Your task to perform on an android device: turn off notifications in google photos Image 0: 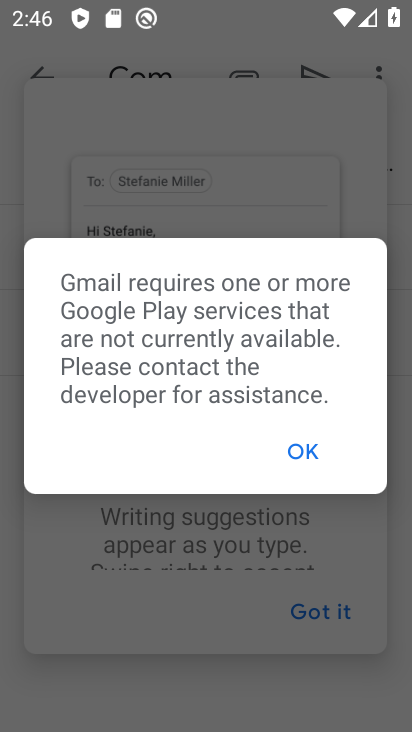
Step 0: press home button
Your task to perform on an android device: turn off notifications in google photos Image 1: 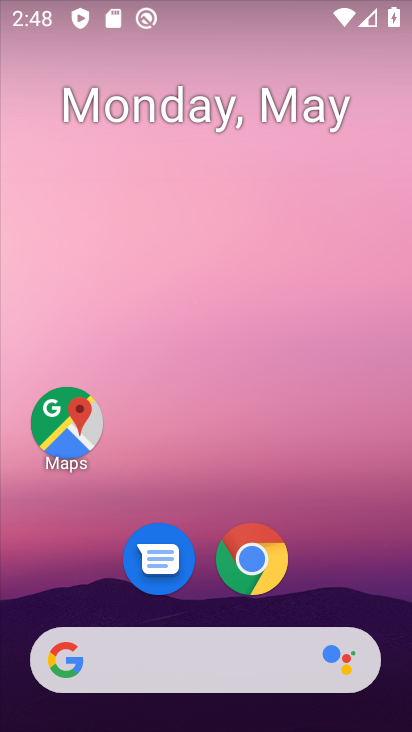
Step 1: drag from (370, 564) to (269, 108)
Your task to perform on an android device: turn off notifications in google photos Image 2: 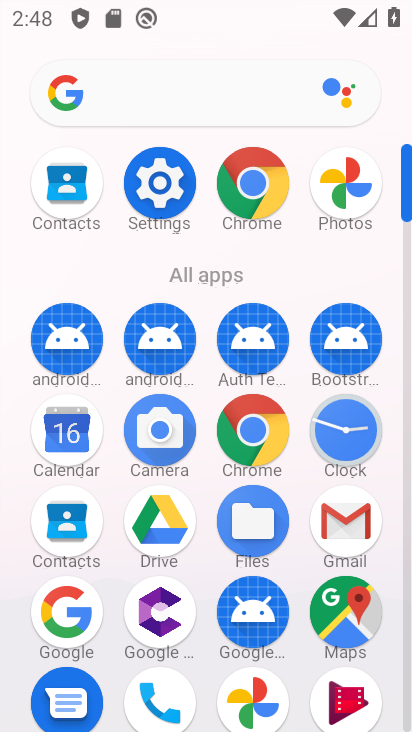
Step 2: click (355, 202)
Your task to perform on an android device: turn off notifications in google photos Image 3: 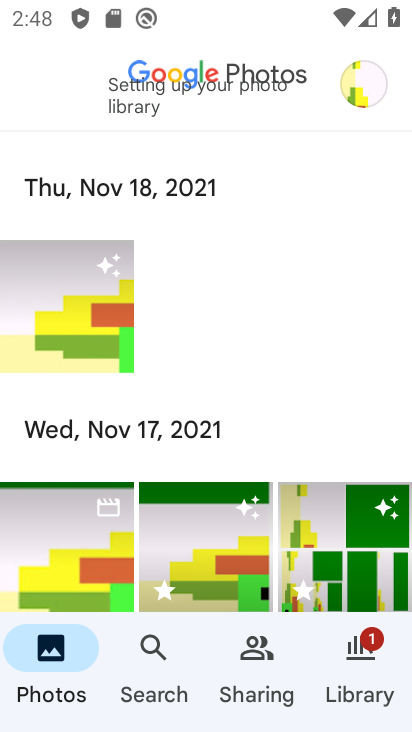
Step 3: click (356, 94)
Your task to perform on an android device: turn off notifications in google photos Image 4: 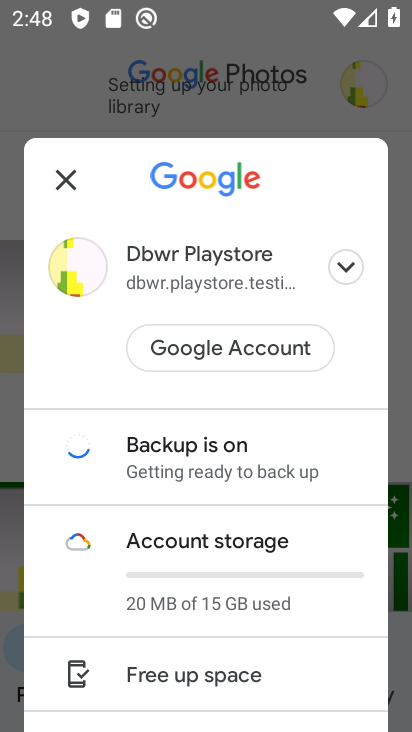
Step 4: drag from (310, 580) to (270, 155)
Your task to perform on an android device: turn off notifications in google photos Image 5: 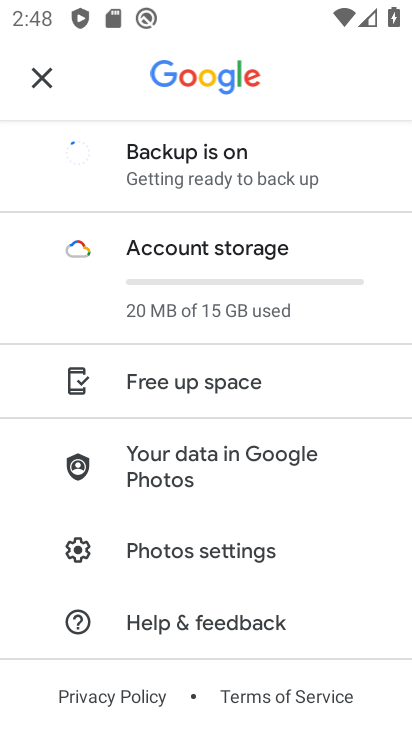
Step 5: click (296, 548)
Your task to perform on an android device: turn off notifications in google photos Image 6: 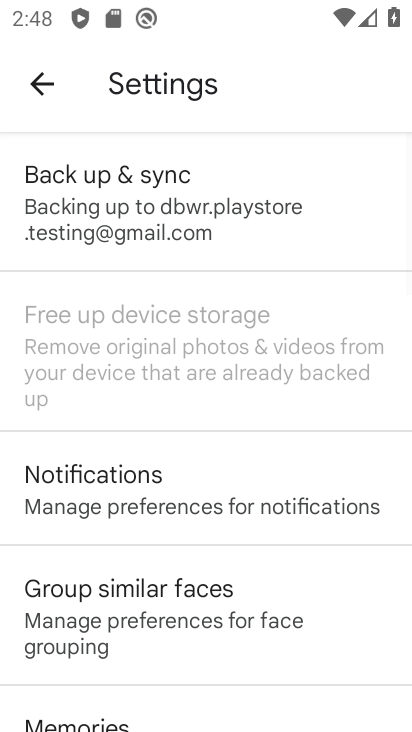
Step 6: click (287, 499)
Your task to perform on an android device: turn off notifications in google photos Image 7: 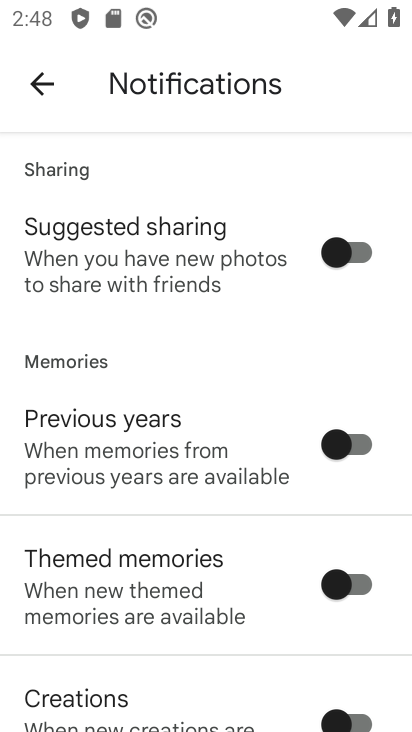
Step 7: drag from (220, 181) to (232, 637)
Your task to perform on an android device: turn off notifications in google photos Image 8: 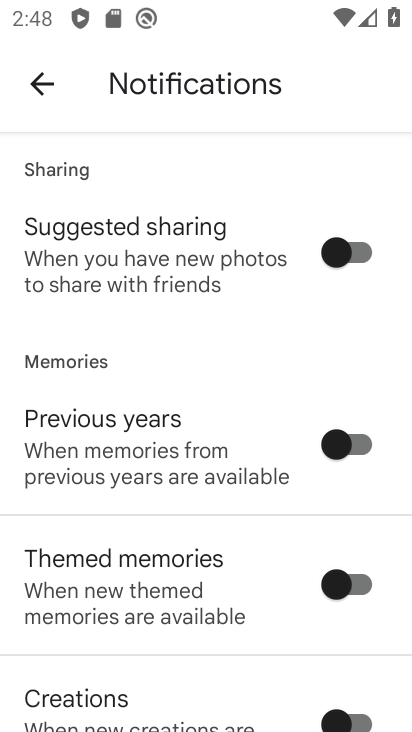
Step 8: drag from (235, 637) to (222, 276)
Your task to perform on an android device: turn off notifications in google photos Image 9: 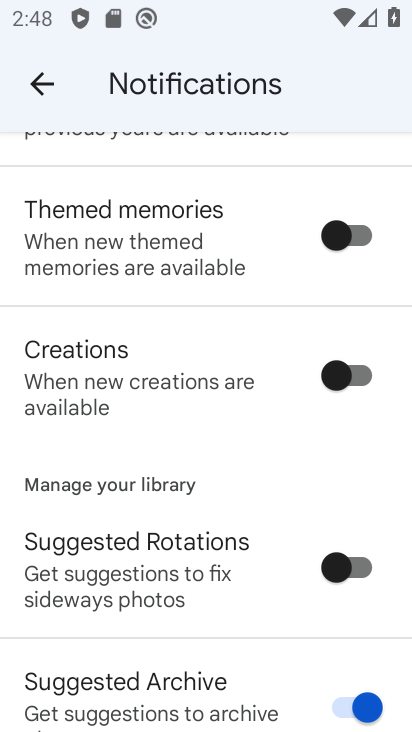
Step 9: drag from (212, 142) to (198, 601)
Your task to perform on an android device: turn off notifications in google photos Image 10: 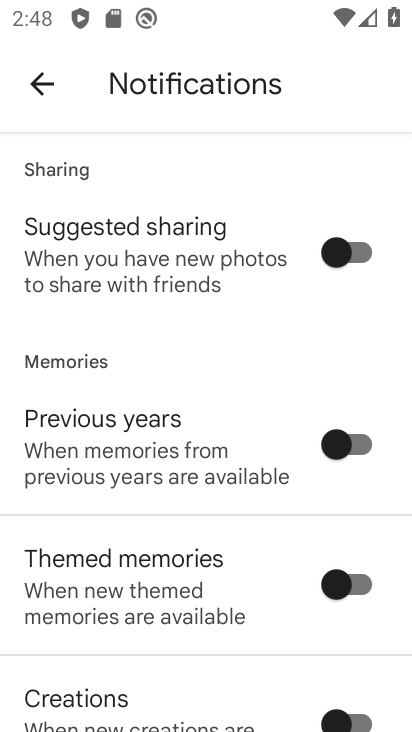
Step 10: drag from (180, 335) to (182, 715)
Your task to perform on an android device: turn off notifications in google photos Image 11: 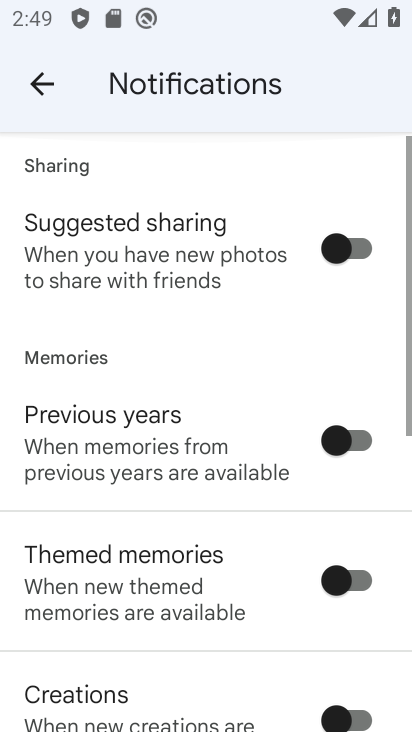
Step 11: drag from (172, 642) to (172, 312)
Your task to perform on an android device: turn off notifications in google photos Image 12: 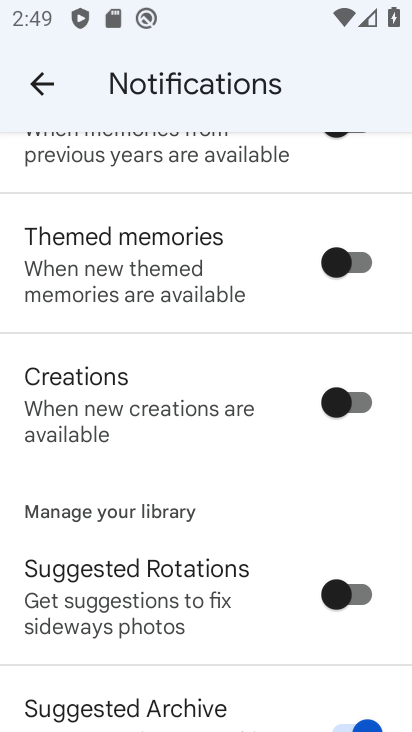
Step 12: drag from (235, 530) to (229, 171)
Your task to perform on an android device: turn off notifications in google photos Image 13: 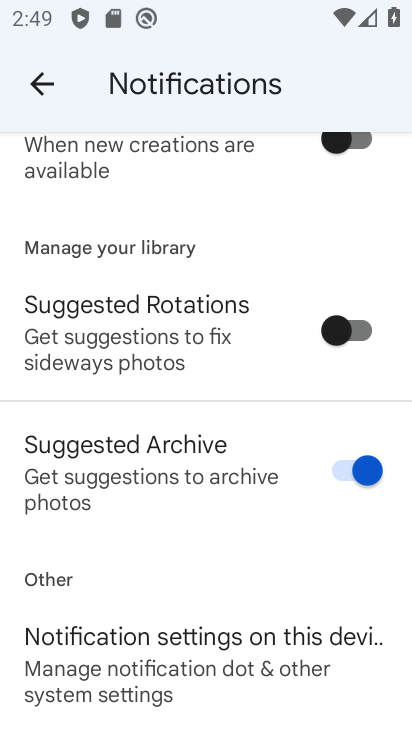
Step 13: click (264, 645)
Your task to perform on an android device: turn off notifications in google photos Image 14: 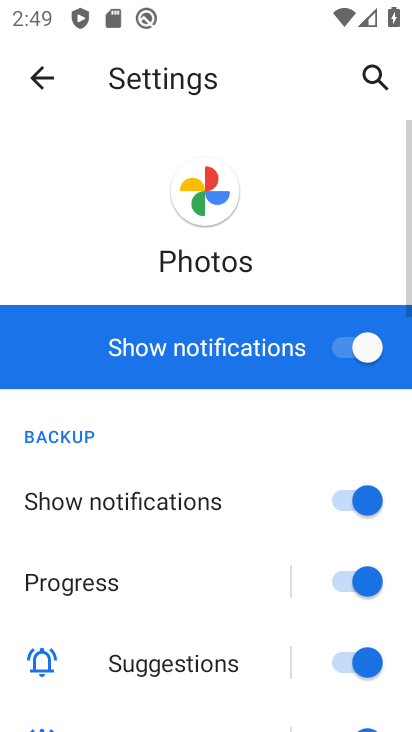
Step 14: click (352, 364)
Your task to perform on an android device: turn off notifications in google photos Image 15: 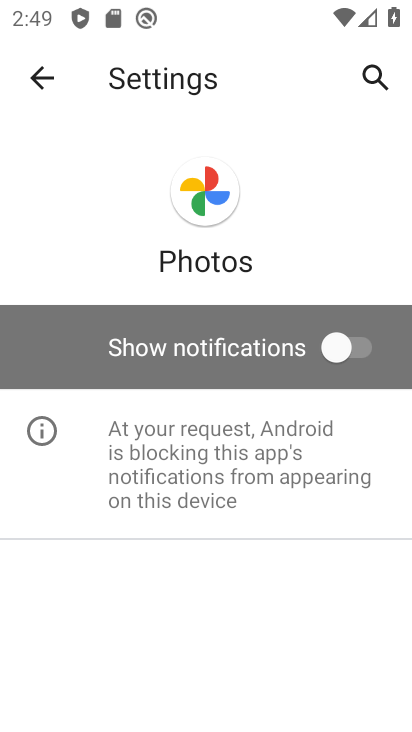
Step 15: task complete